Your task to perform on an android device: clear history in the chrome app Image 0: 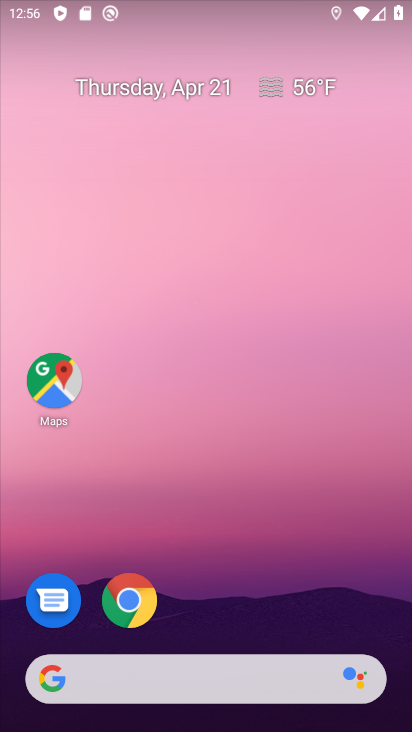
Step 0: click (124, 611)
Your task to perform on an android device: clear history in the chrome app Image 1: 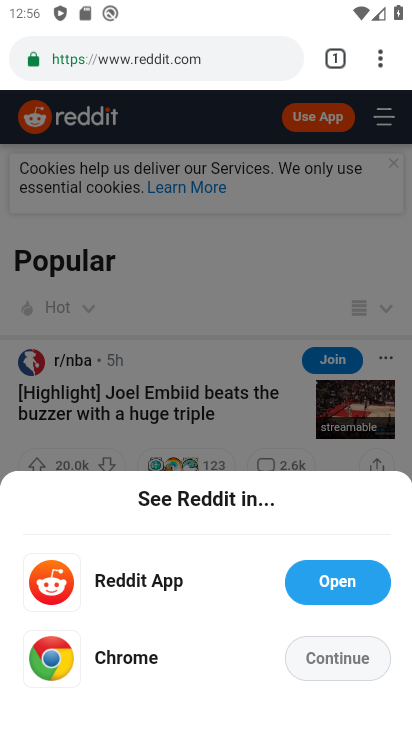
Step 1: press home button
Your task to perform on an android device: clear history in the chrome app Image 2: 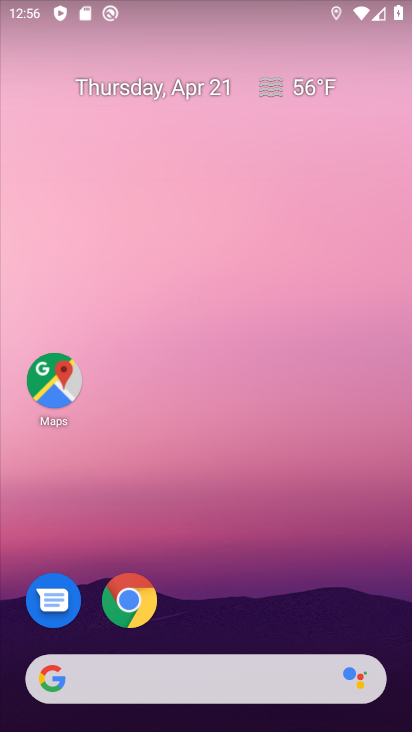
Step 2: click (142, 594)
Your task to perform on an android device: clear history in the chrome app Image 3: 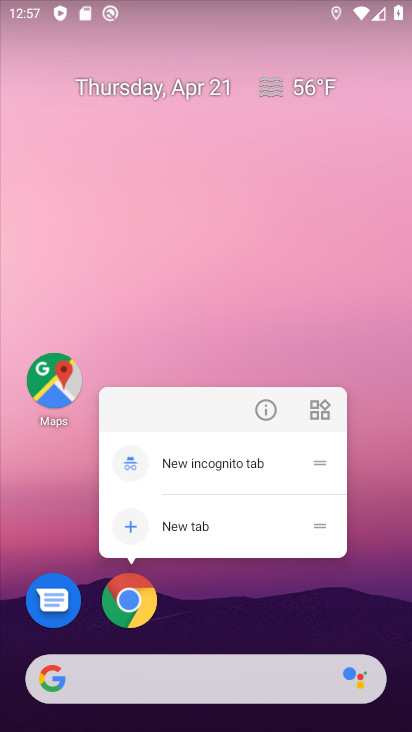
Step 3: click (142, 594)
Your task to perform on an android device: clear history in the chrome app Image 4: 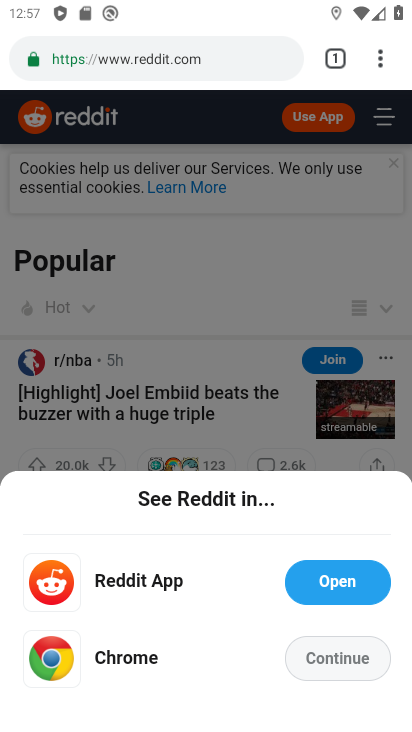
Step 4: click (380, 54)
Your task to perform on an android device: clear history in the chrome app Image 5: 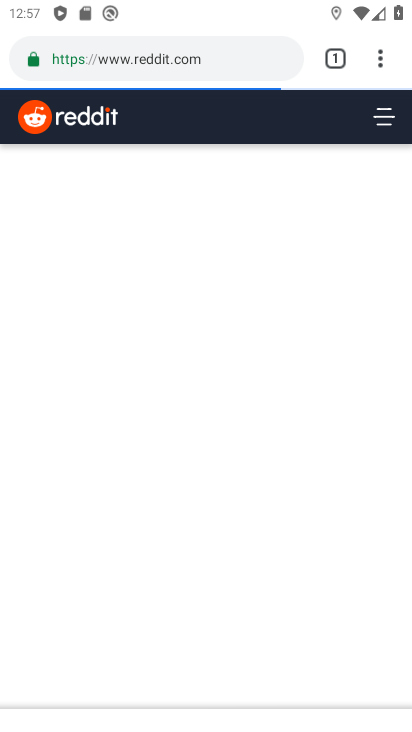
Step 5: click (380, 54)
Your task to perform on an android device: clear history in the chrome app Image 6: 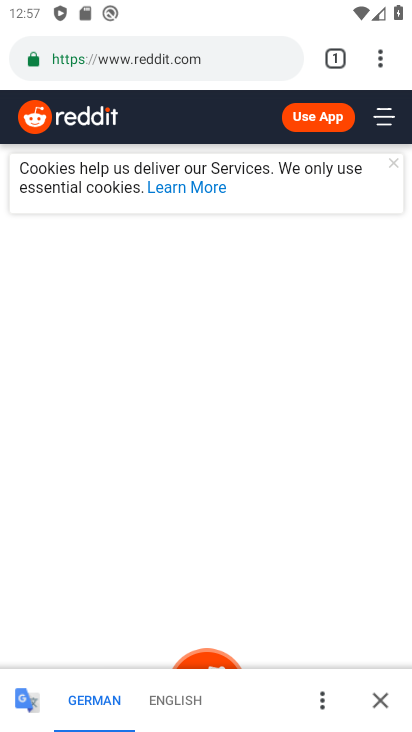
Step 6: click (380, 54)
Your task to perform on an android device: clear history in the chrome app Image 7: 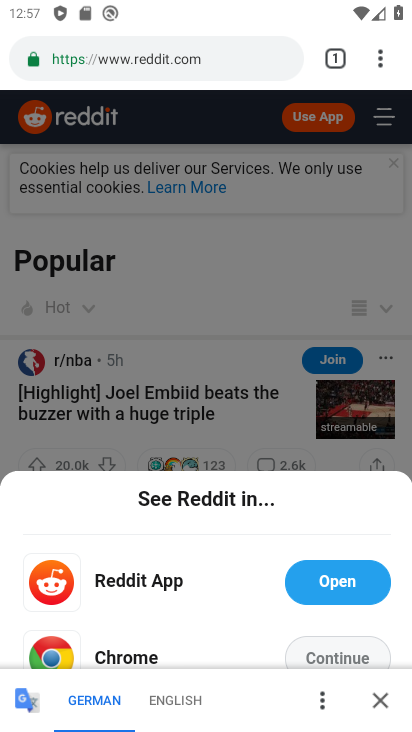
Step 7: click (380, 54)
Your task to perform on an android device: clear history in the chrome app Image 8: 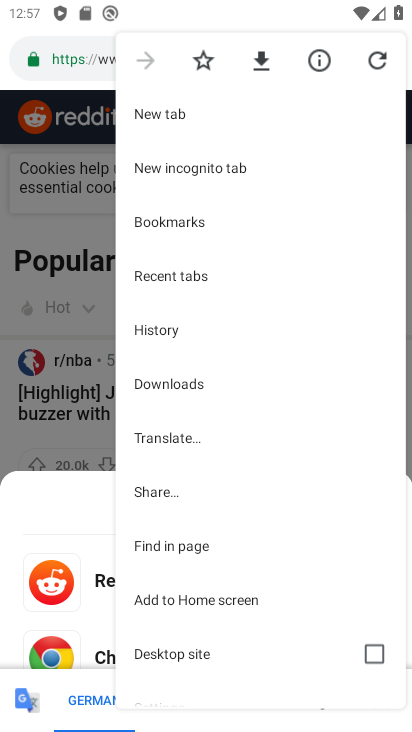
Step 8: click (161, 322)
Your task to perform on an android device: clear history in the chrome app Image 9: 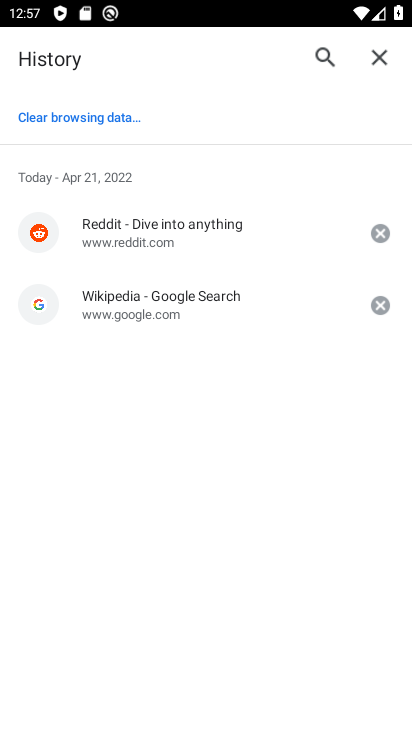
Step 9: click (103, 117)
Your task to perform on an android device: clear history in the chrome app Image 10: 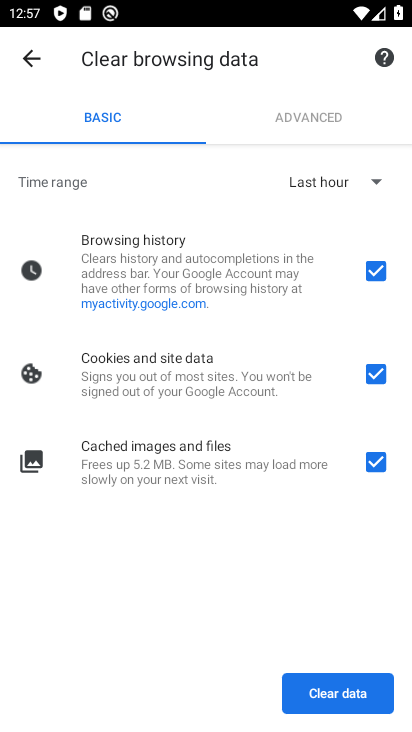
Step 10: click (354, 694)
Your task to perform on an android device: clear history in the chrome app Image 11: 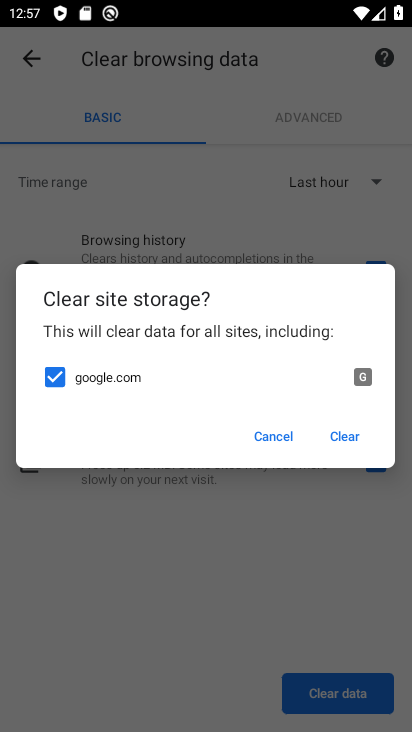
Step 11: click (342, 429)
Your task to perform on an android device: clear history in the chrome app Image 12: 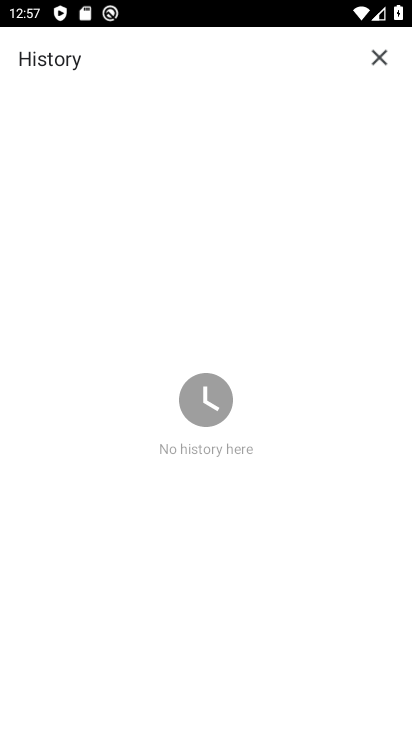
Step 12: task complete